Your task to perform on an android device: turn off priority inbox in the gmail app Image 0: 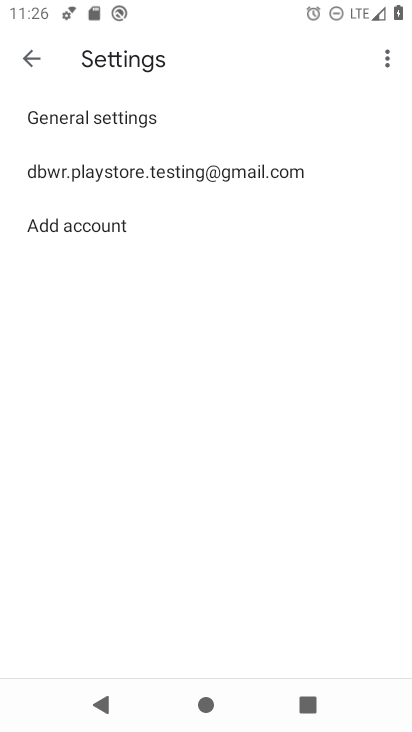
Step 0: click (114, 167)
Your task to perform on an android device: turn off priority inbox in the gmail app Image 1: 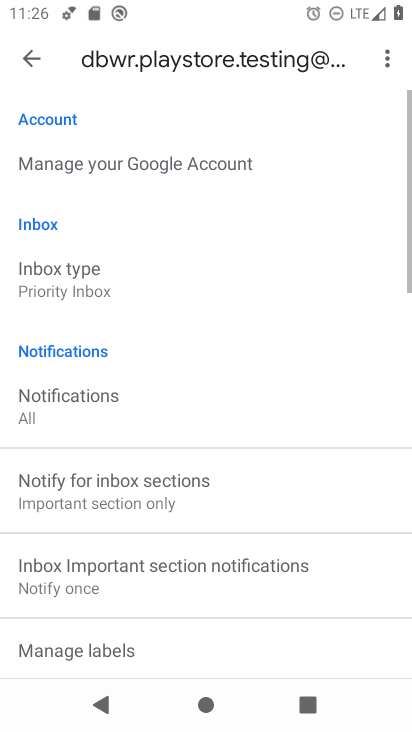
Step 1: click (64, 271)
Your task to perform on an android device: turn off priority inbox in the gmail app Image 2: 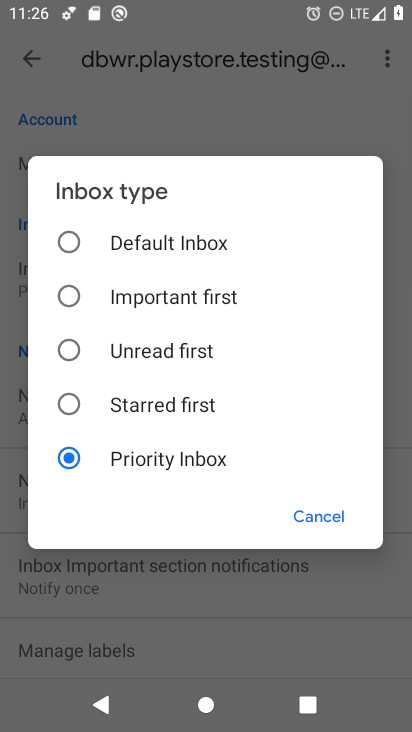
Step 2: click (73, 241)
Your task to perform on an android device: turn off priority inbox in the gmail app Image 3: 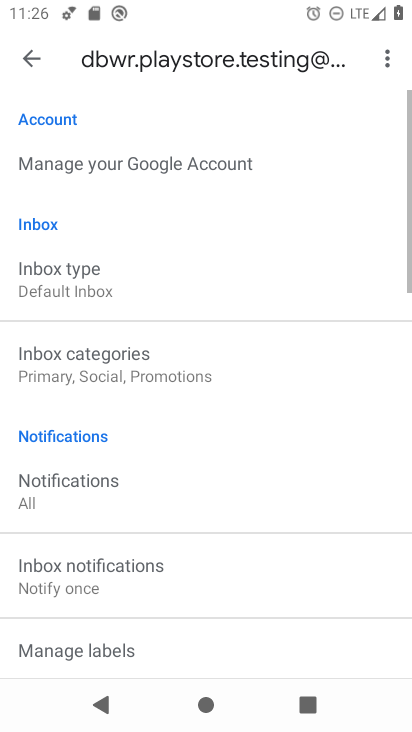
Step 3: task complete